Your task to perform on an android device: search for starred emails in the gmail app Image 0: 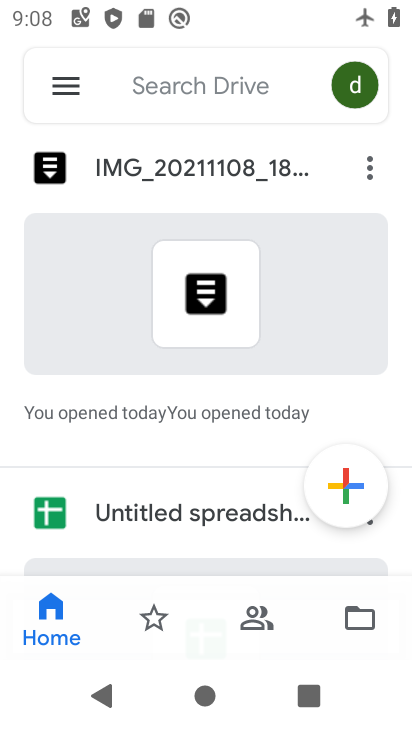
Step 0: press home button
Your task to perform on an android device: search for starred emails in the gmail app Image 1: 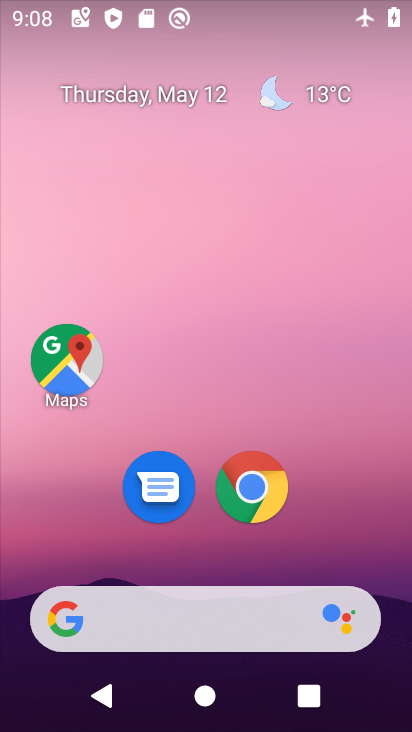
Step 1: drag from (345, 537) to (278, 18)
Your task to perform on an android device: search for starred emails in the gmail app Image 2: 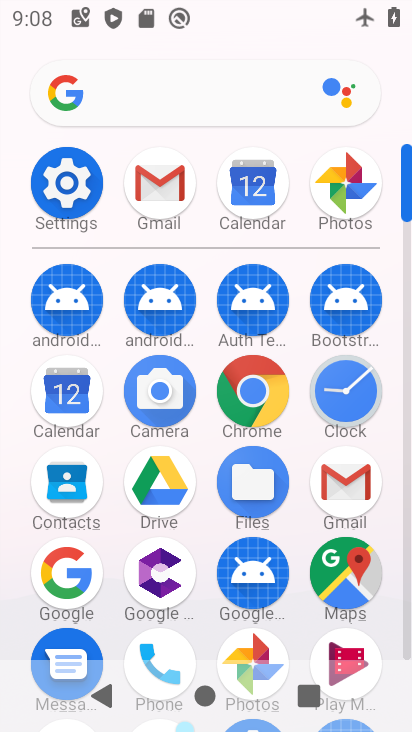
Step 2: click (162, 187)
Your task to perform on an android device: search for starred emails in the gmail app Image 3: 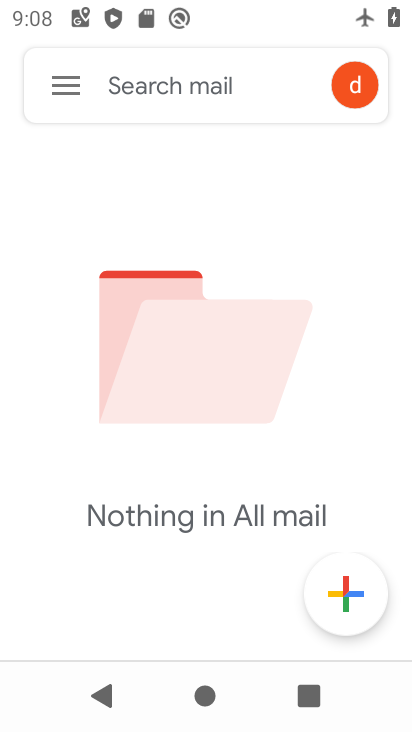
Step 3: click (69, 92)
Your task to perform on an android device: search for starred emails in the gmail app Image 4: 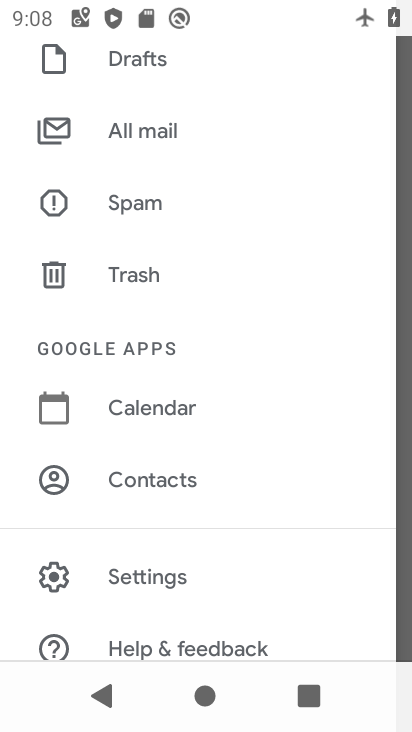
Step 4: drag from (244, 187) to (310, 590)
Your task to perform on an android device: search for starred emails in the gmail app Image 5: 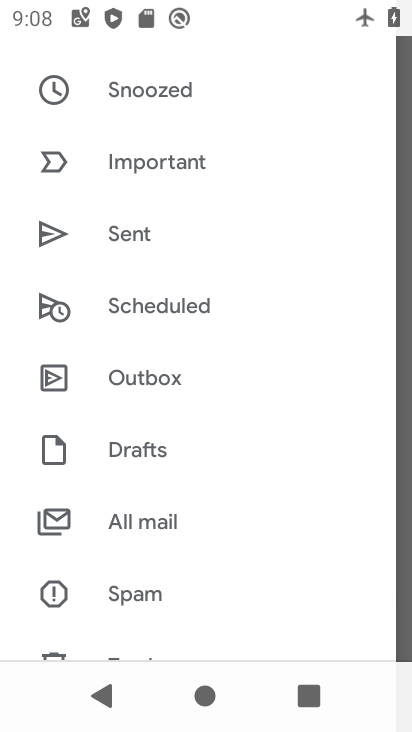
Step 5: drag from (208, 176) to (274, 484)
Your task to perform on an android device: search for starred emails in the gmail app Image 6: 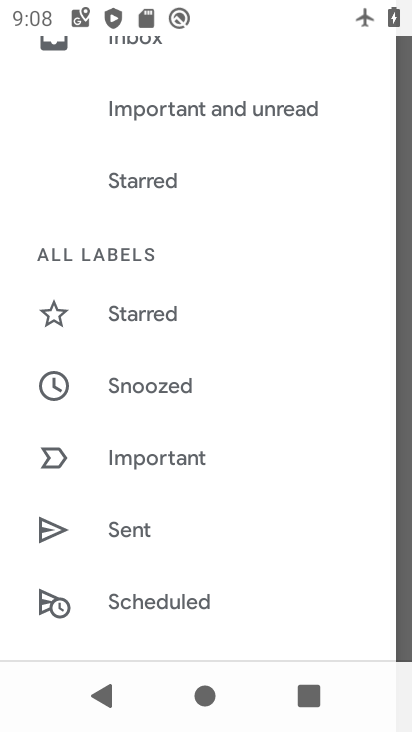
Step 6: click (137, 306)
Your task to perform on an android device: search for starred emails in the gmail app Image 7: 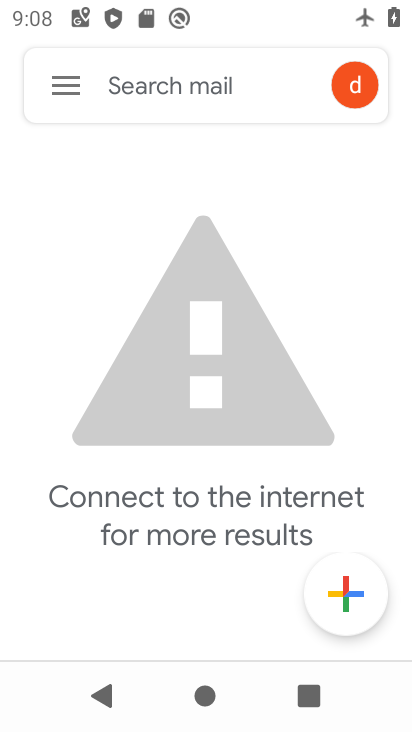
Step 7: task complete